Your task to perform on an android device: Open eBay Image 0: 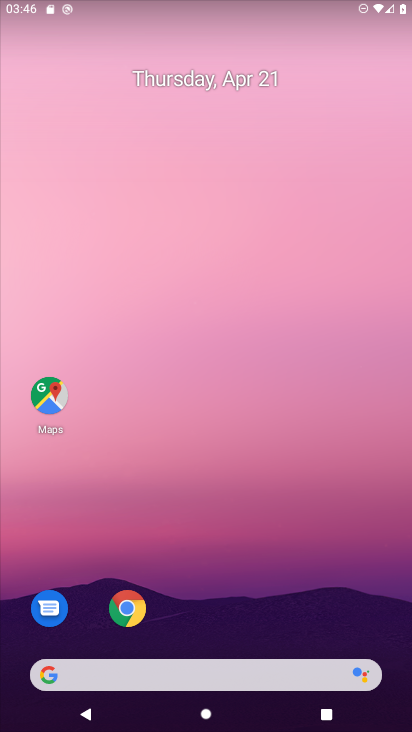
Step 0: drag from (237, 559) to (236, 218)
Your task to perform on an android device: Open eBay Image 1: 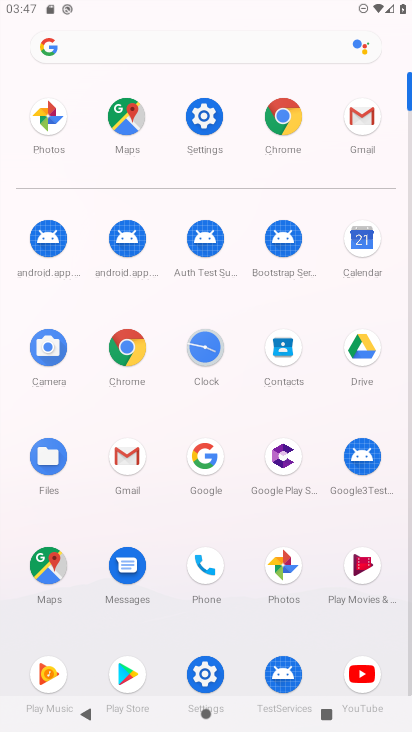
Step 1: click (285, 117)
Your task to perform on an android device: Open eBay Image 2: 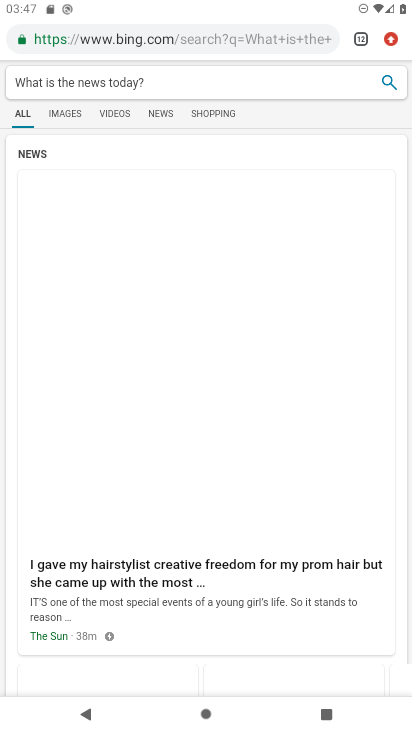
Step 2: click (389, 34)
Your task to perform on an android device: Open eBay Image 3: 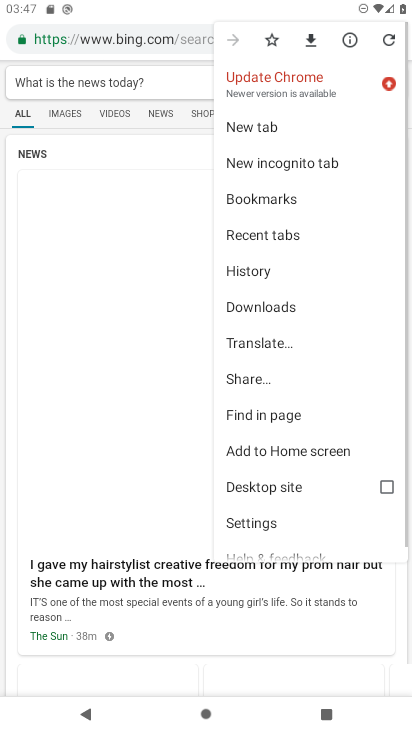
Step 3: click (263, 130)
Your task to perform on an android device: Open eBay Image 4: 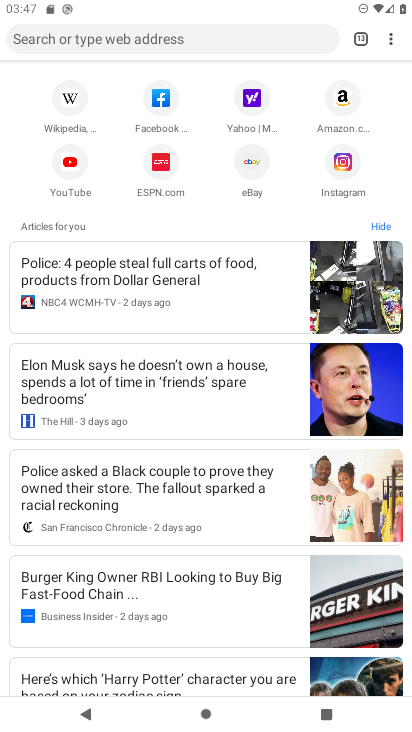
Step 4: click (249, 169)
Your task to perform on an android device: Open eBay Image 5: 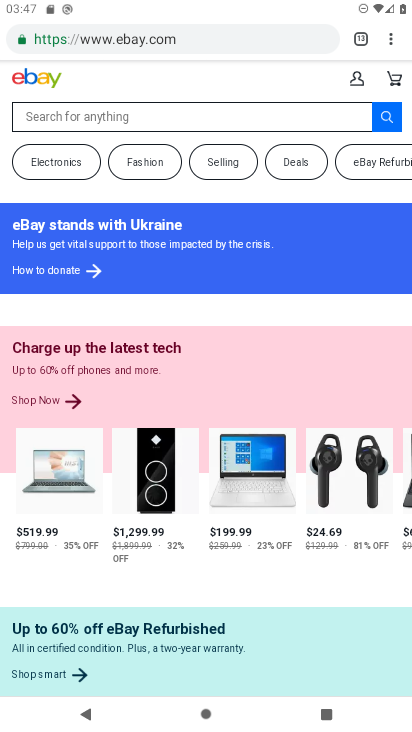
Step 5: task complete